Your task to perform on an android device: Open maps Image 0: 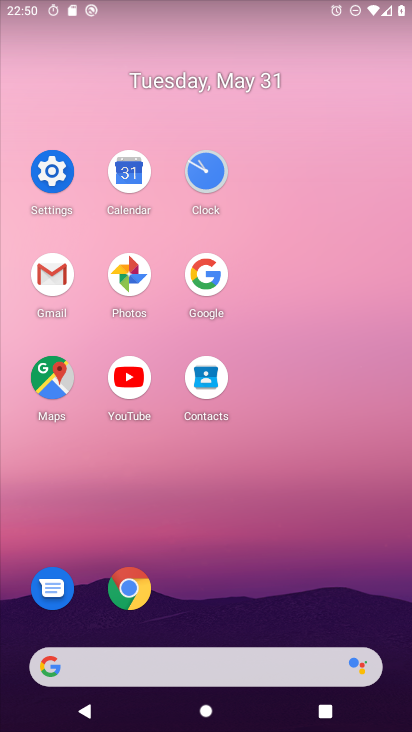
Step 0: click (46, 391)
Your task to perform on an android device: Open maps Image 1: 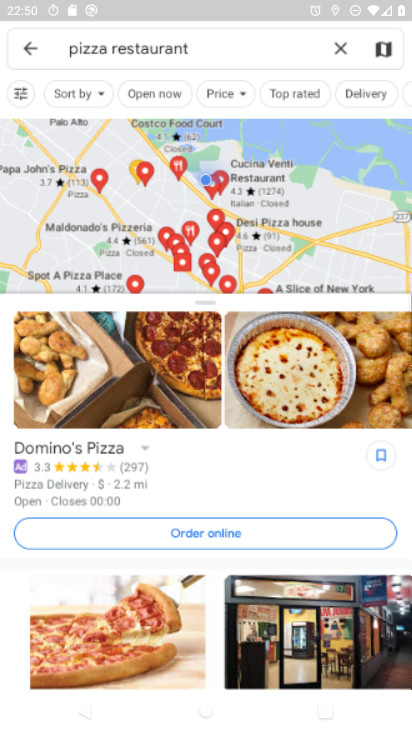
Step 1: task complete